Your task to perform on an android device: Search for vegetarian restaurants on Maps Image 0: 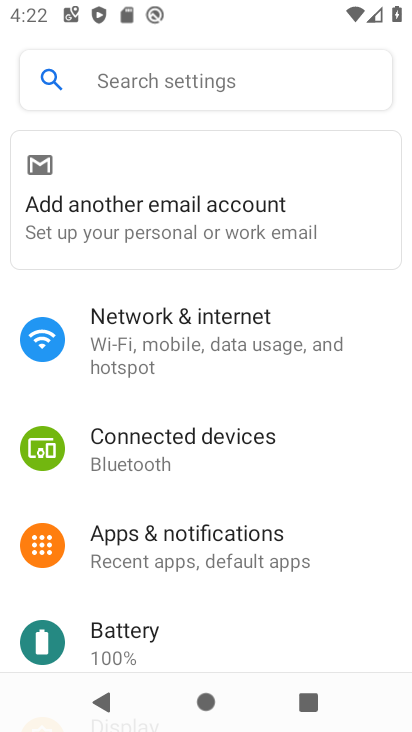
Step 0: drag from (126, 534) to (286, 205)
Your task to perform on an android device: Search for vegetarian restaurants on Maps Image 1: 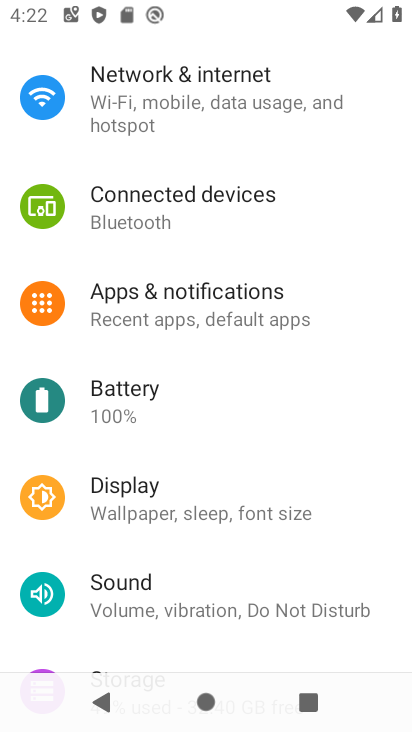
Step 1: press home button
Your task to perform on an android device: Search for vegetarian restaurants on Maps Image 2: 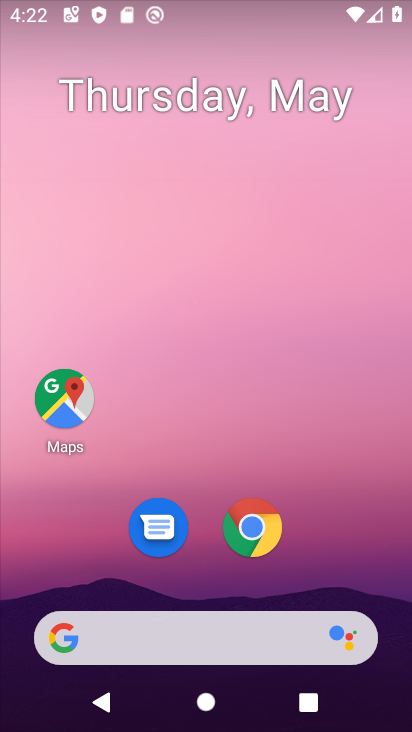
Step 2: drag from (321, 513) to (398, 51)
Your task to perform on an android device: Search for vegetarian restaurants on Maps Image 3: 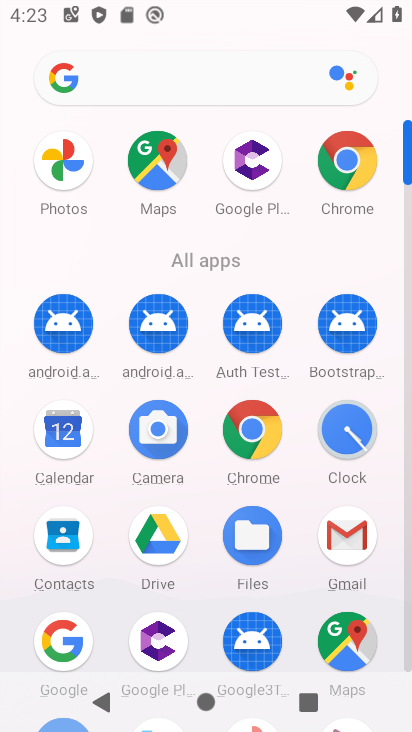
Step 3: click (359, 627)
Your task to perform on an android device: Search for vegetarian restaurants on Maps Image 4: 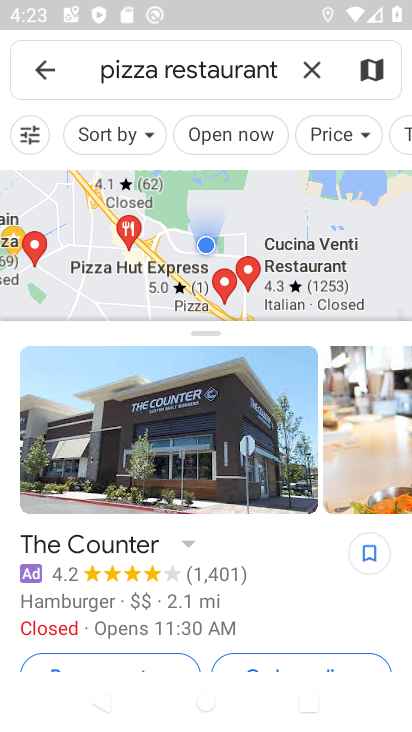
Step 4: click (315, 62)
Your task to perform on an android device: Search for vegetarian restaurants on Maps Image 5: 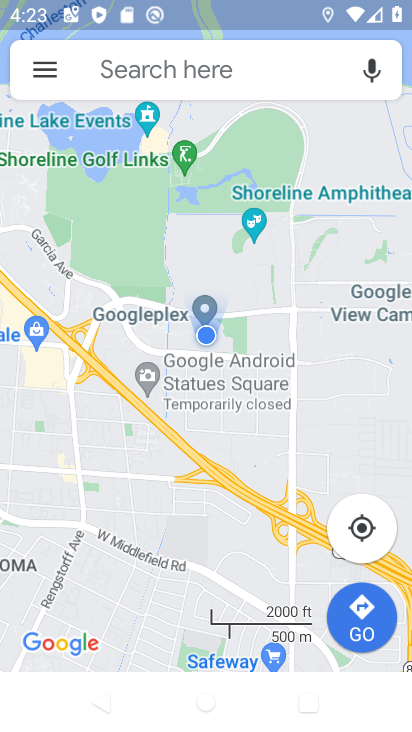
Step 5: click (244, 64)
Your task to perform on an android device: Search for vegetarian restaurants on Maps Image 6: 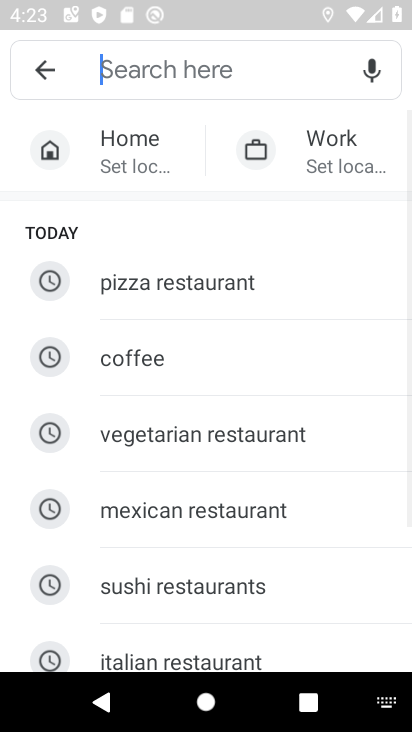
Step 6: click (238, 444)
Your task to perform on an android device: Search for vegetarian restaurants on Maps Image 7: 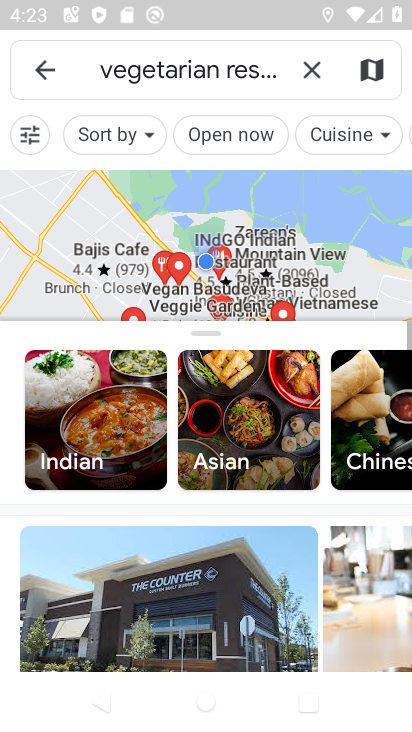
Step 7: task complete